Your task to perform on an android device: clear all cookies in the chrome app Image 0: 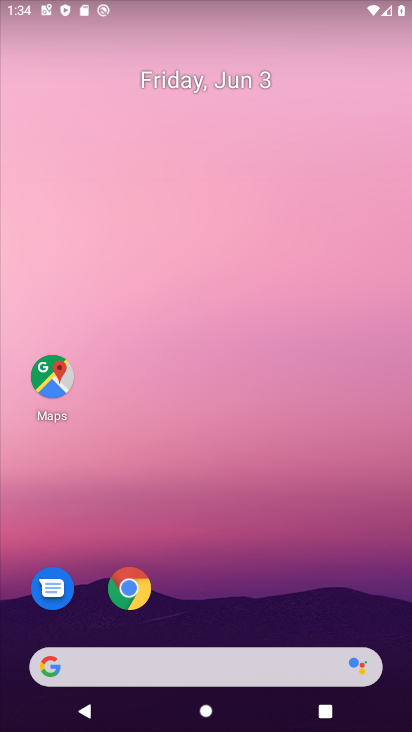
Step 0: click (125, 579)
Your task to perform on an android device: clear all cookies in the chrome app Image 1: 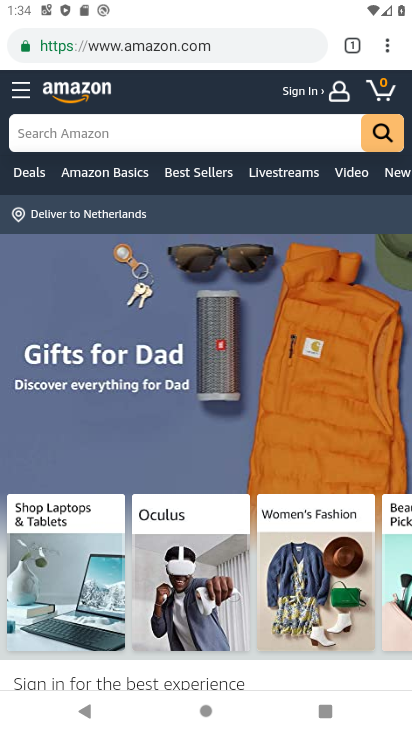
Step 1: click (388, 48)
Your task to perform on an android device: clear all cookies in the chrome app Image 2: 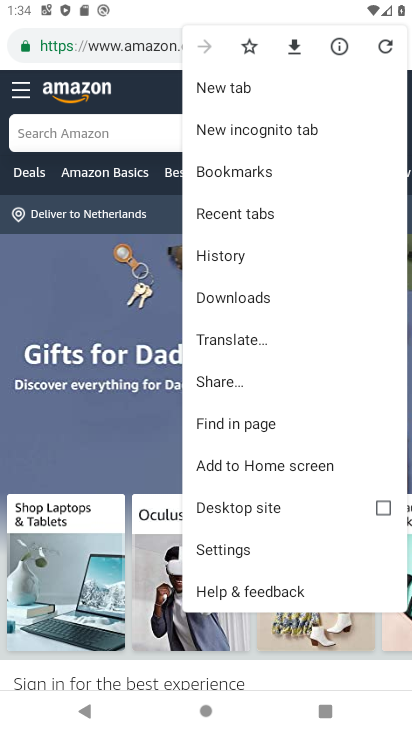
Step 2: click (214, 255)
Your task to perform on an android device: clear all cookies in the chrome app Image 3: 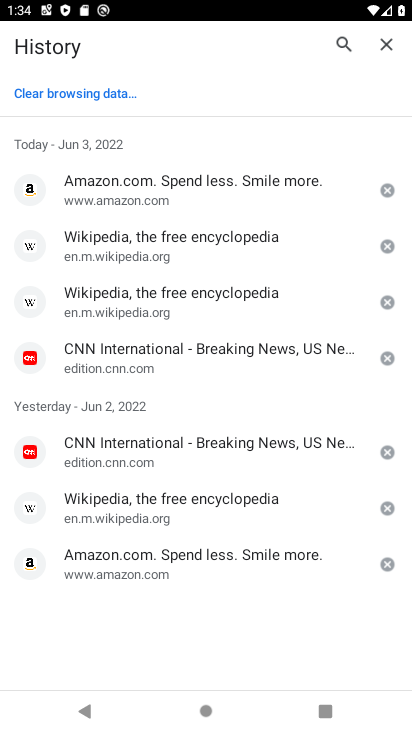
Step 3: click (76, 87)
Your task to perform on an android device: clear all cookies in the chrome app Image 4: 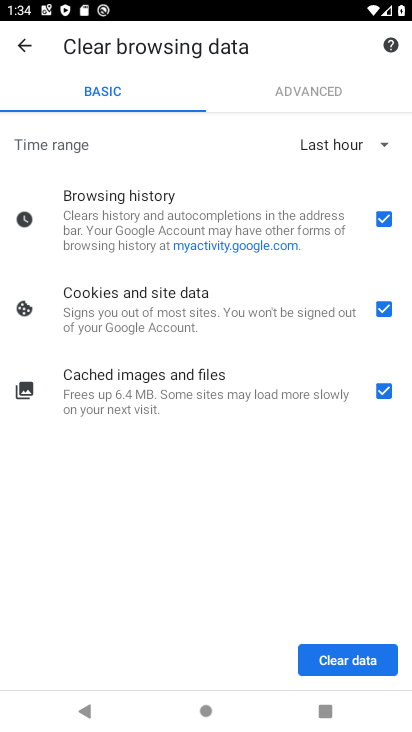
Step 4: click (379, 647)
Your task to perform on an android device: clear all cookies in the chrome app Image 5: 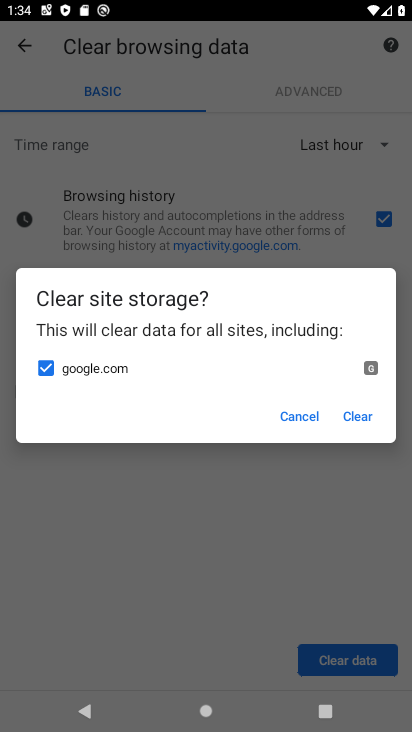
Step 5: click (359, 415)
Your task to perform on an android device: clear all cookies in the chrome app Image 6: 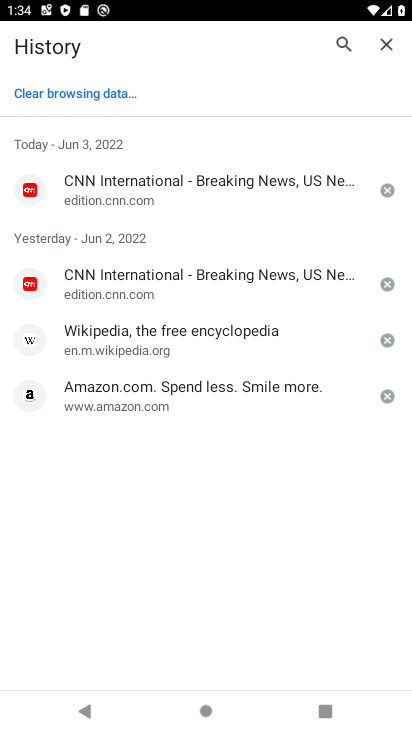
Step 6: task complete